Your task to perform on an android device: Is it going to rain this weekend? Image 0: 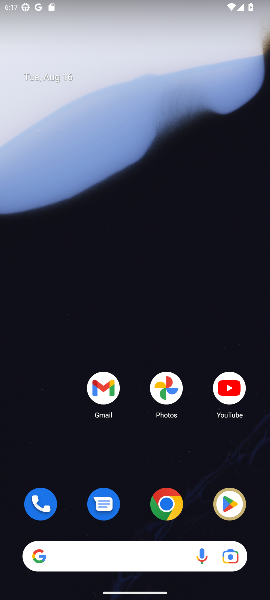
Step 0: click (89, 552)
Your task to perform on an android device: Is it going to rain this weekend? Image 1: 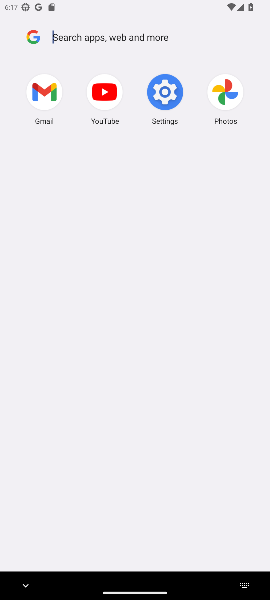
Step 1: type "Is it going to rain this weekend?"
Your task to perform on an android device: Is it going to rain this weekend? Image 2: 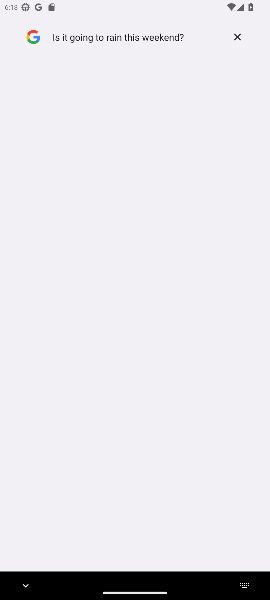
Step 2: task complete